Your task to perform on an android device: Search for vegetarian restaurants on Maps Image 0: 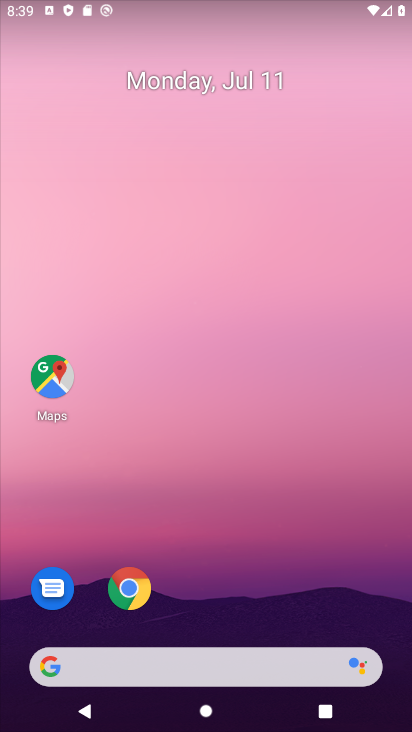
Step 0: drag from (394, 663) to (360, 11)
Your task to perform on an android device: Search for vegetarian restaurants on Maps Image 1: 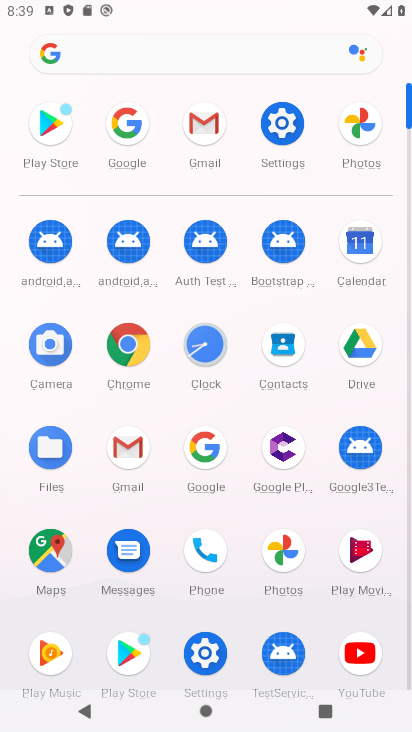
Step 1: click (61, 531)
Your task to perform on an android device: Search for vegetarian restaurants on Maps Image 2: 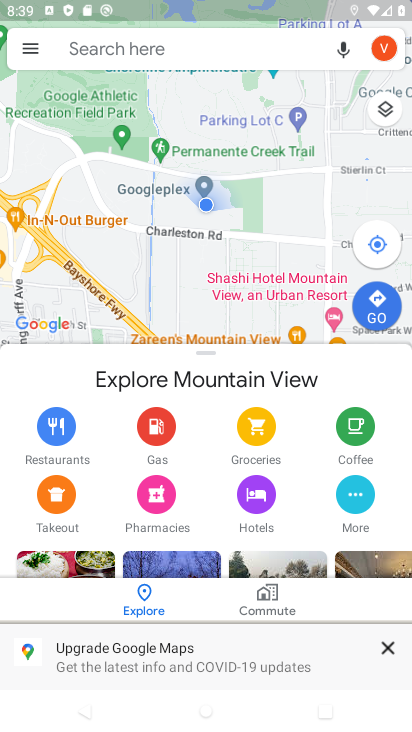
Step 2: click (209, 42)
Your task to perform on an android device: Search for vegetarian restaurants on Maps Image 3: 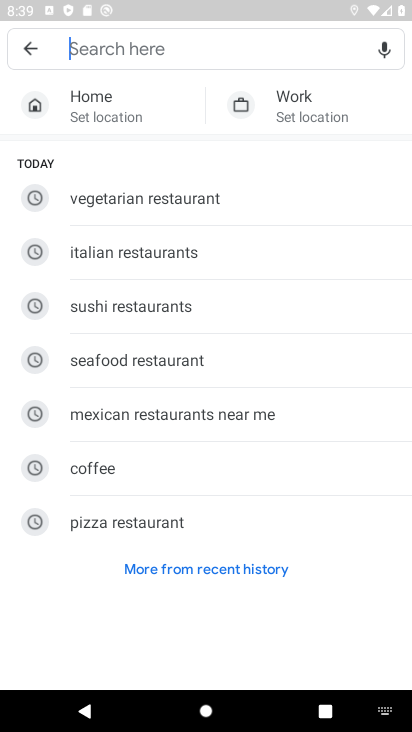
Step 3: click (185, 207)
Your task to perform on an android device: Search for vegetarian restaurants on Maps Image 4: 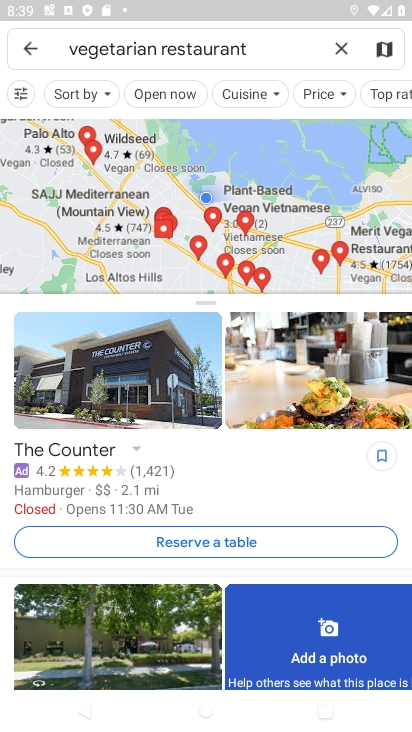
Step 4: task complete